Your task to perform on an android device: set default search engine in the chrome app Image 0: 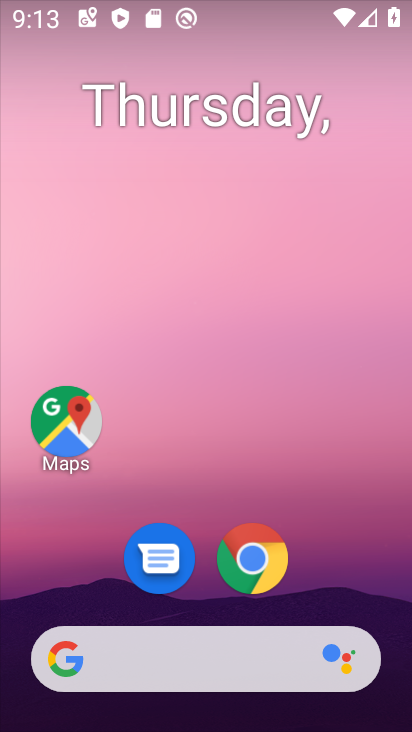
Step 0: click (251, 556)
Your task to perform on an android device: set default search engine in the chrome app Image 1: 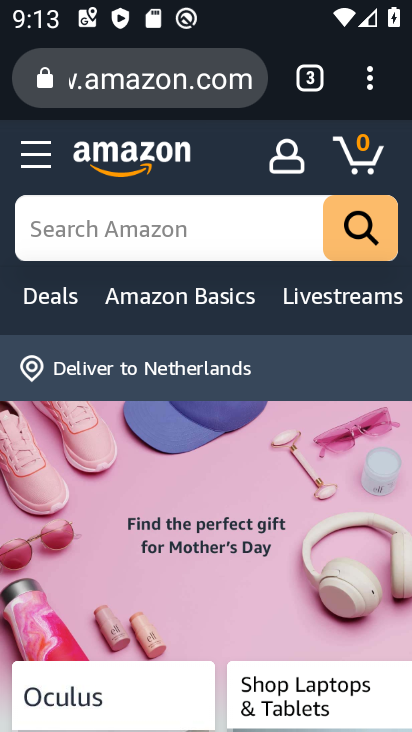
Step 1: click (371, 83)
Your task to perform on an android device: set default search engine in the chrome app Image 2: 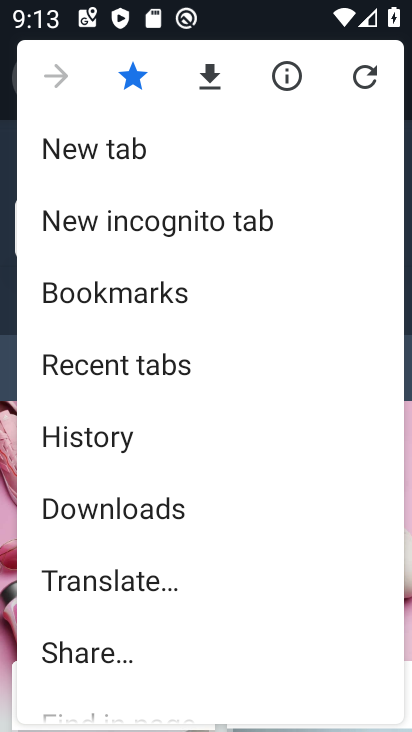
Step 2: drag from (169, 603) to (241, 179)
Your task to perform on an android device: set default search engine in the chrome app Image 3: 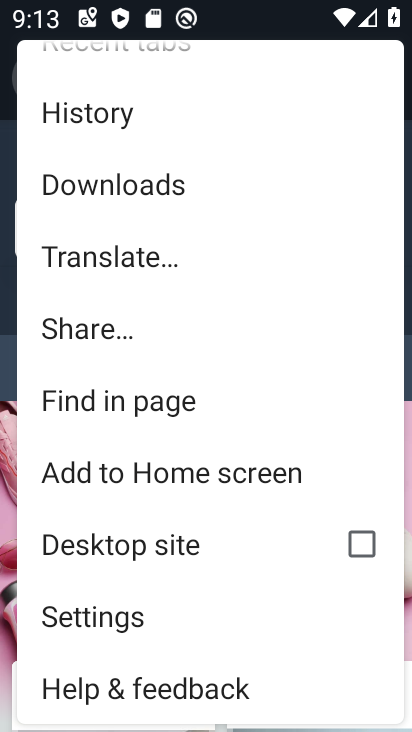
Step 3: click (81, 622)
Your task to perform on an android device: set default search engine in the chrome app Image 4: 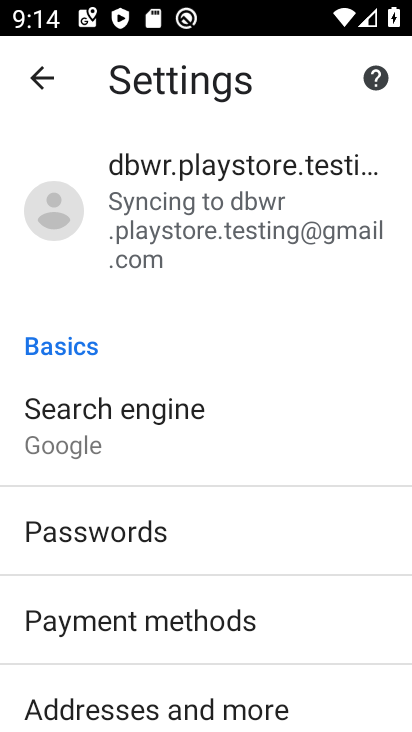
Step 4: click (53, 434)
Your task to perform on an android device: set default search engine in the chrome app Image 5: 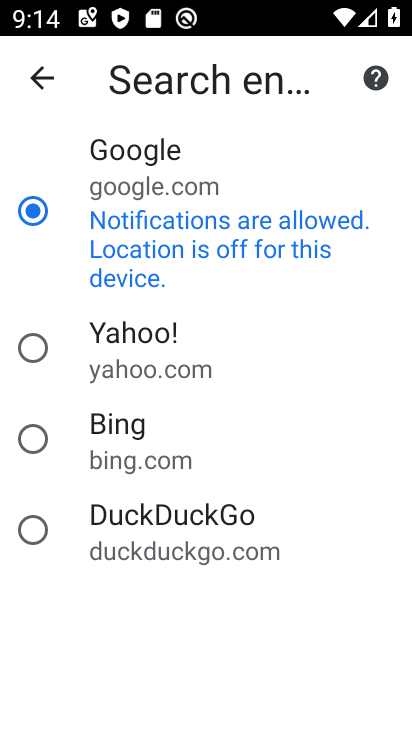
Step 5: click (27, 349)
Your task to perform on an android device: set default search engine in the chrome app Image 6: 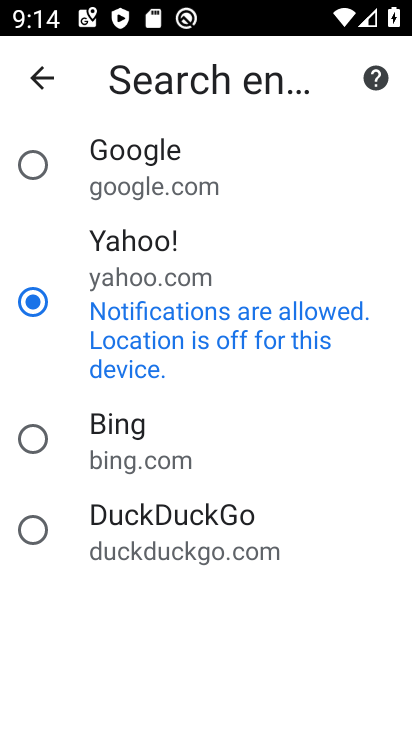
Step 6: task complete